Your task to perform on an android device: turn on showing notifications on the lock screen Image 0: 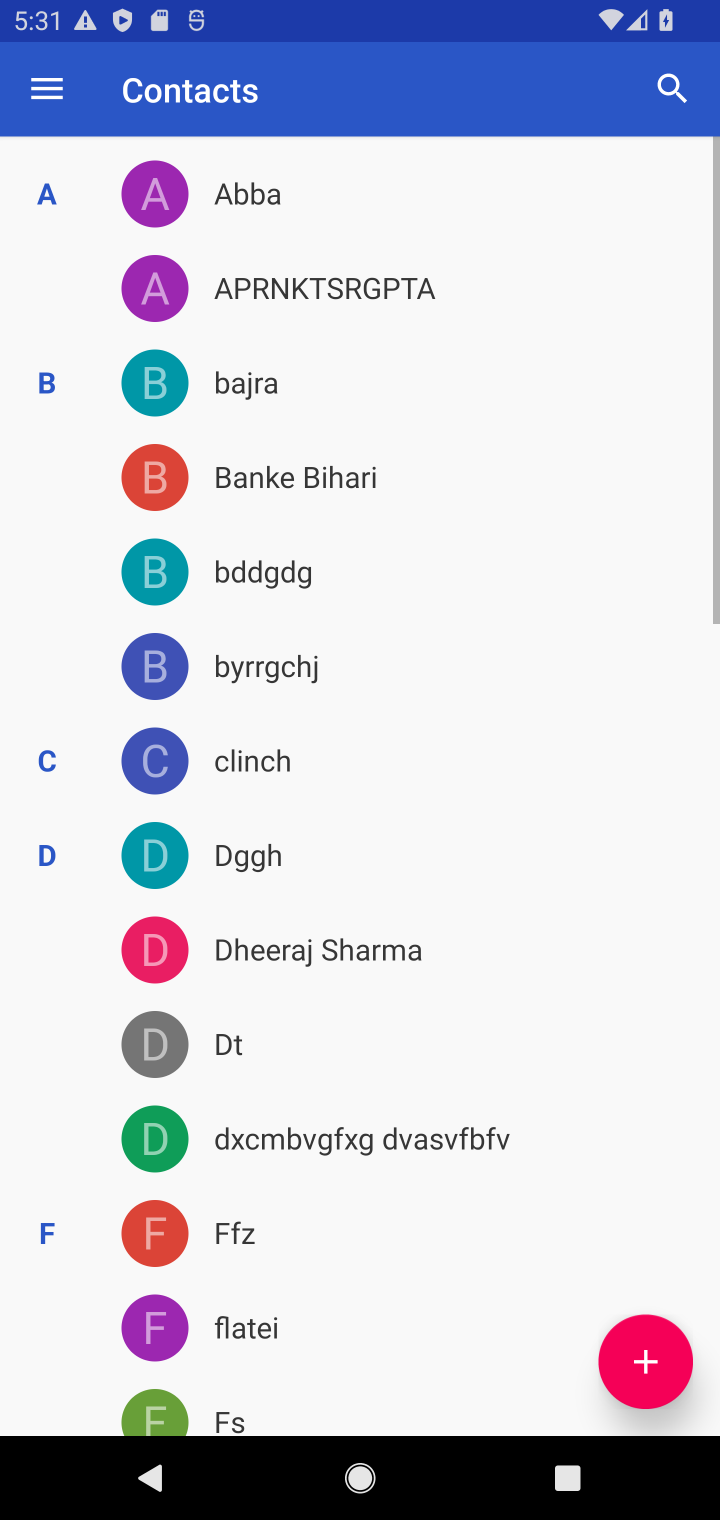
Step 0: press home button
Your task to perform on an android device: turn on showing notifications on the lock screen Image 1: 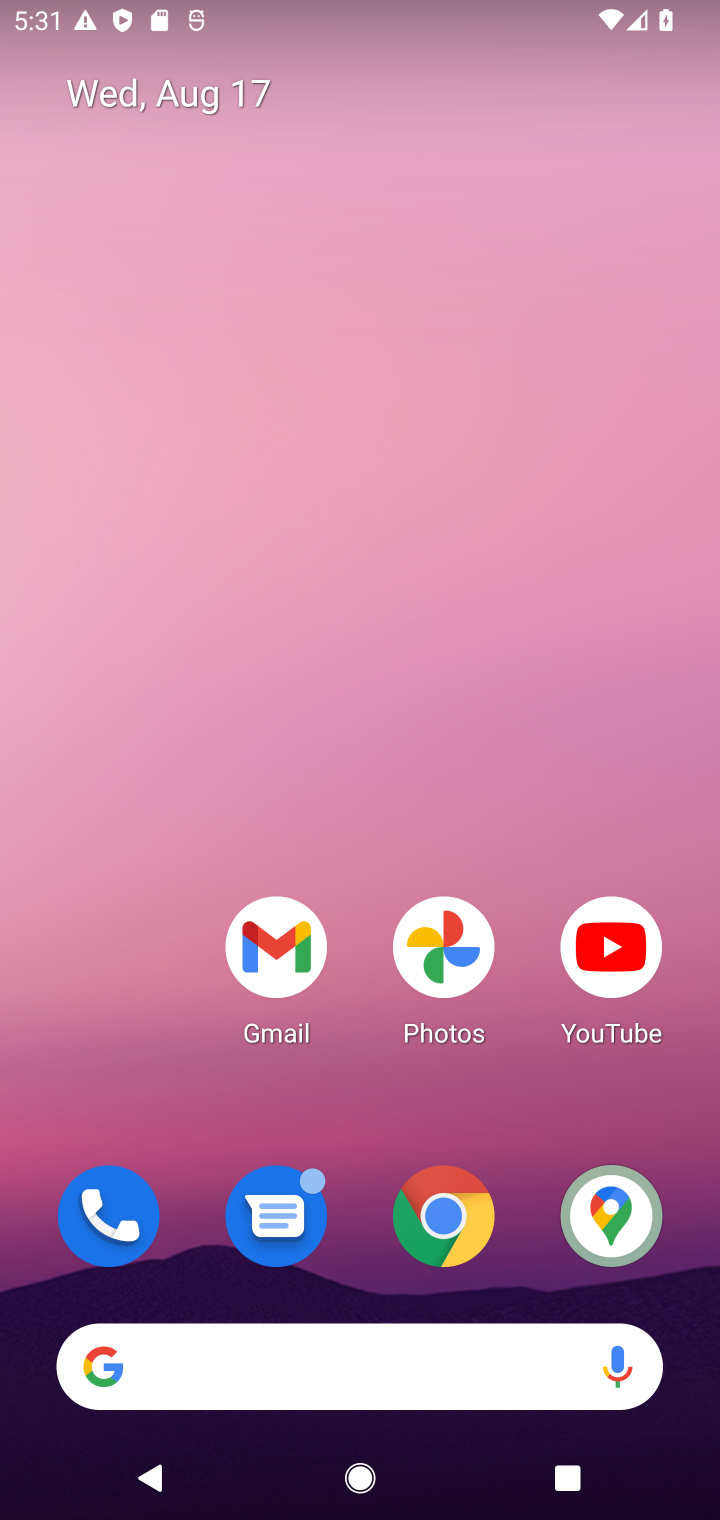
Step 1: drag from (367, 1106) to (495, 78)
Your task to perform on an android device: turn on showing notifications on the lock screen Image 2: 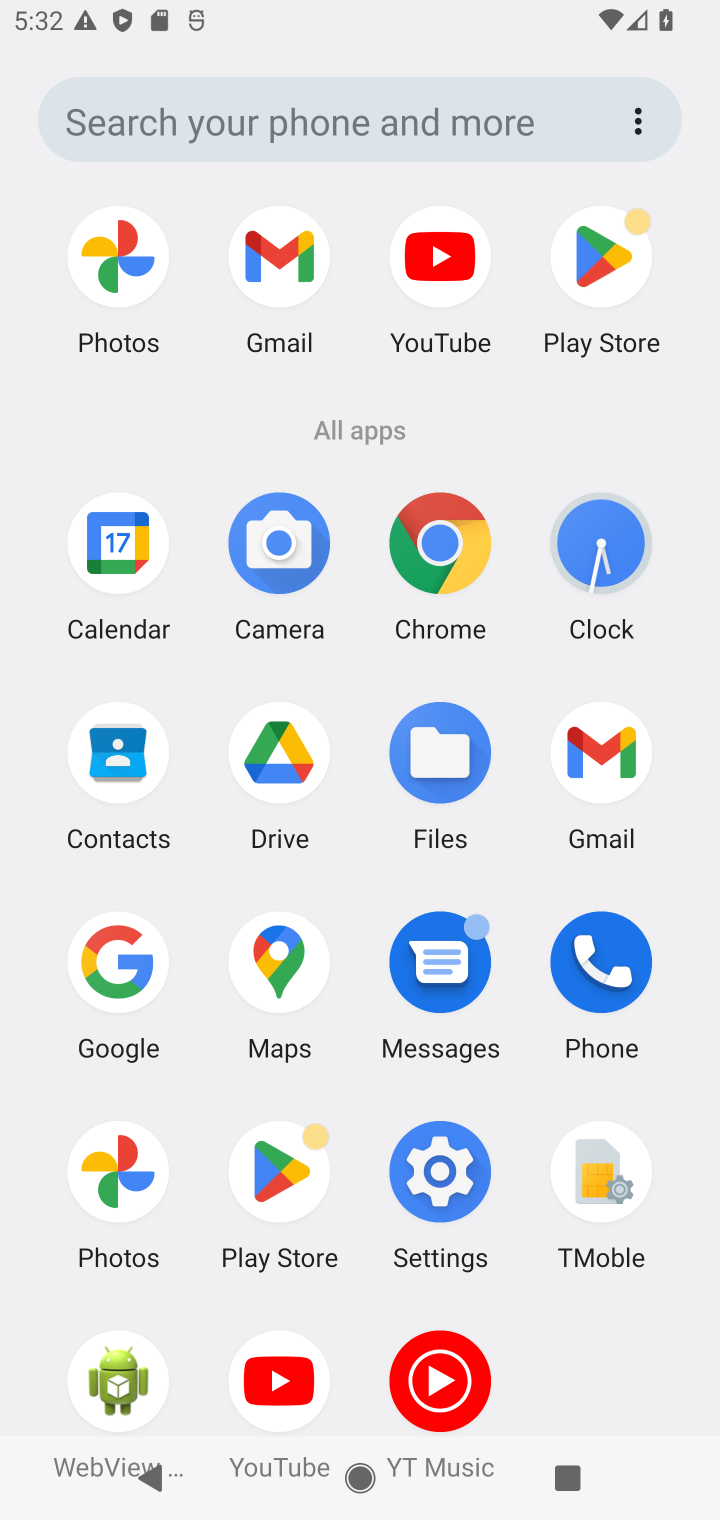
Step 2: click (439, 1168)
Your task to perform on an android device: turn on showing notifications on the lock screen Image 3: 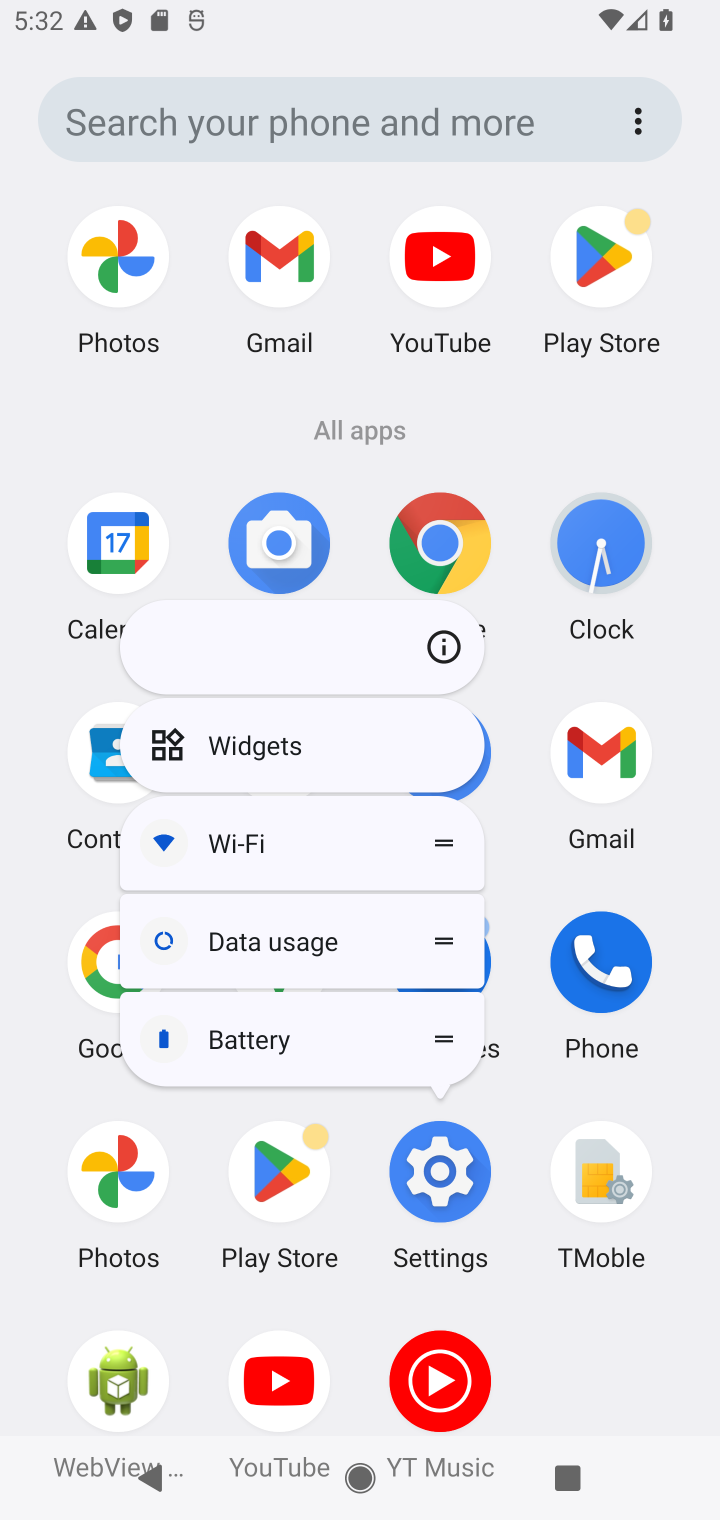
Step 3: click (451, 1173)
Your task to perform on an android device: turn on showing notifications on the lock screen Image 4: 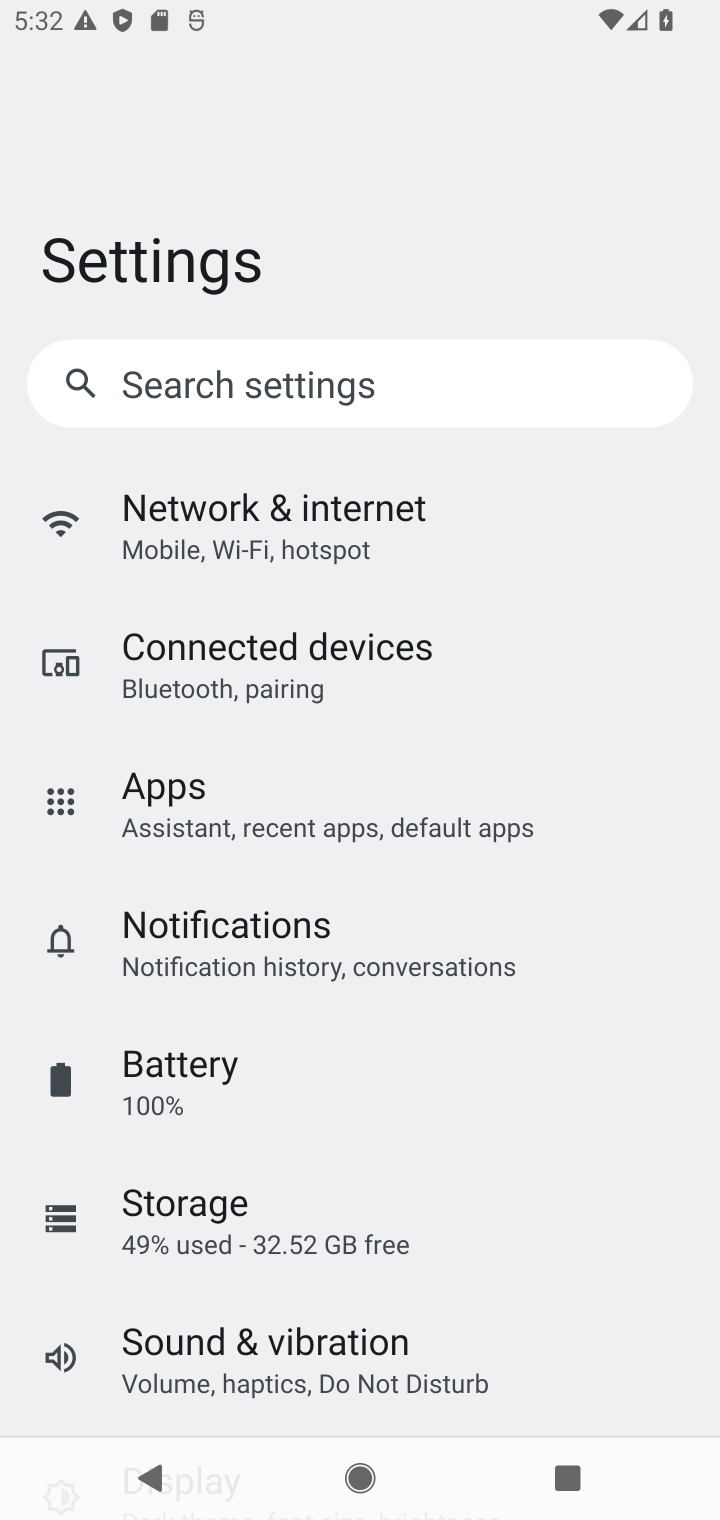
Step 4: click (328, 928)
Your task to perform on an android device: turn on showing notifications on the lock screen Image 5: 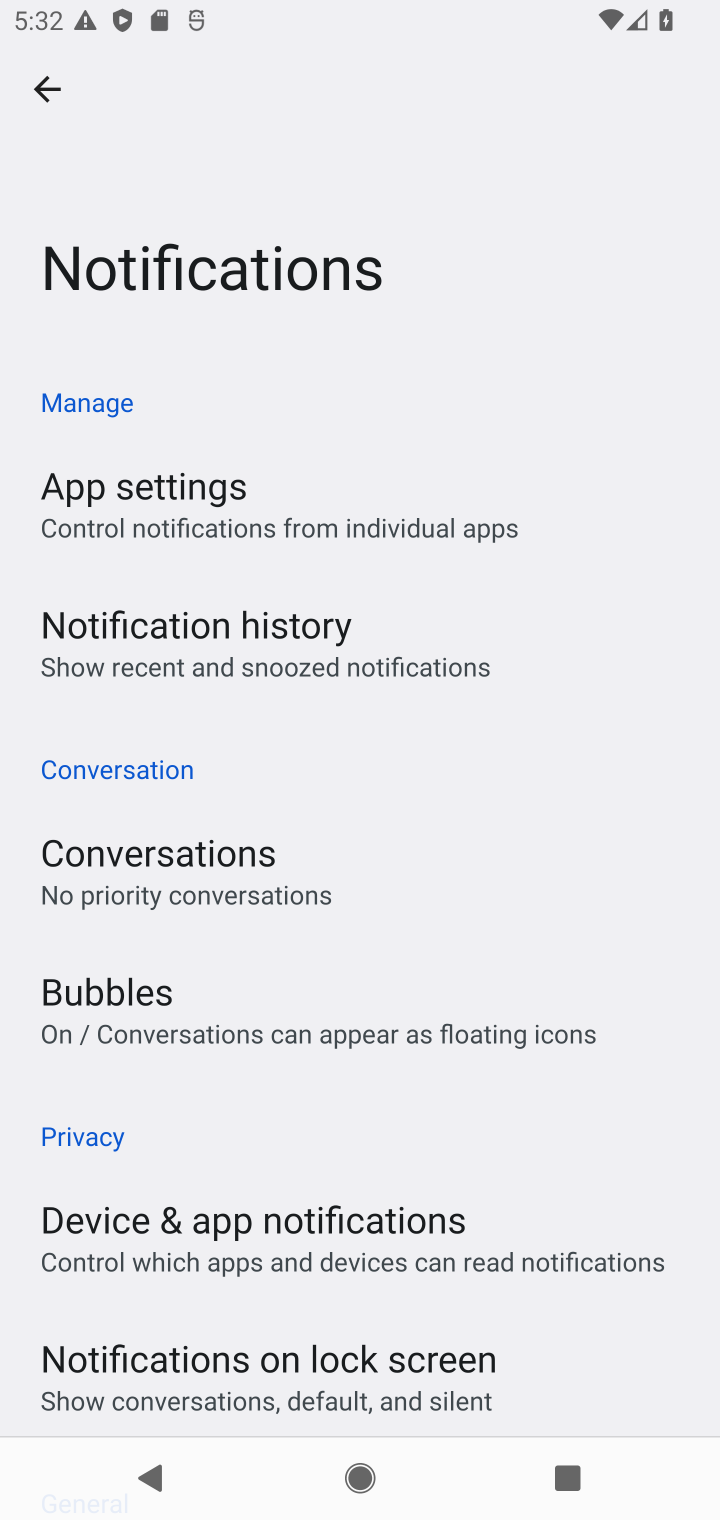
Step 5: drag from (361, 1139) to (337, 513)
Your task to perform on an android device: turn on showing notifications on the lock screen Image 6: 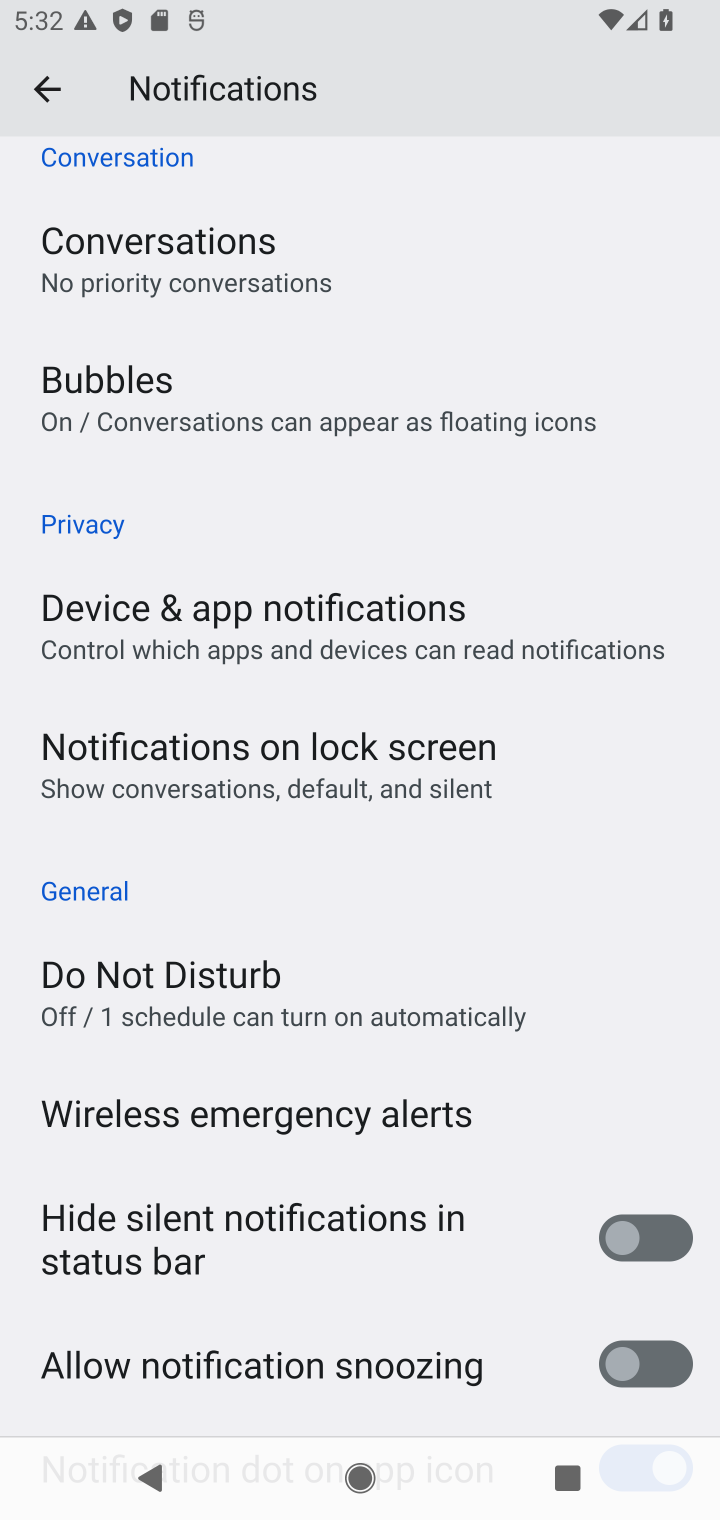
Step 6: click (317, 750)
Your task to perform on an android device: turn on showing notifications on the lock screen Image 7: 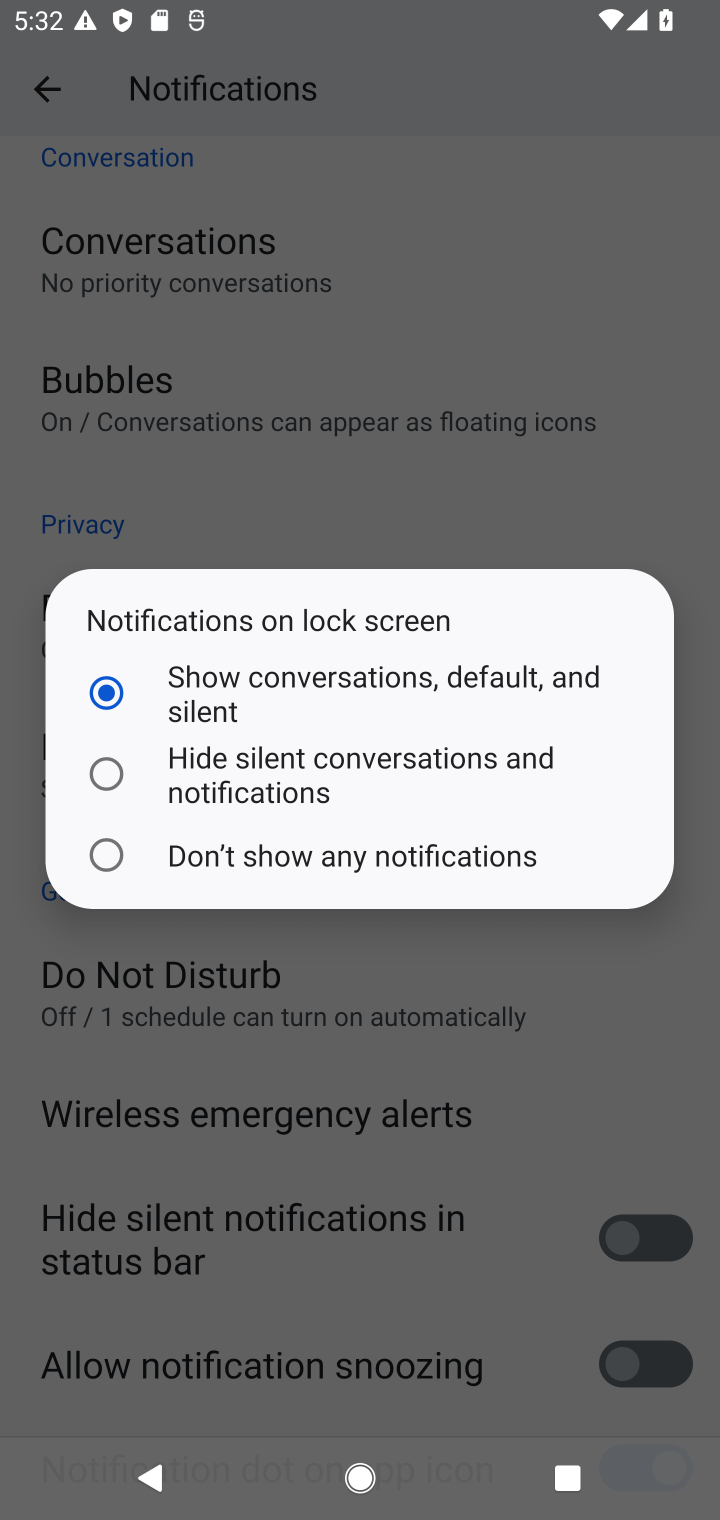
Step 7: click (252, 775)
Your task to perform on an android device: turn on showing notifications on the lock screen Image 8: 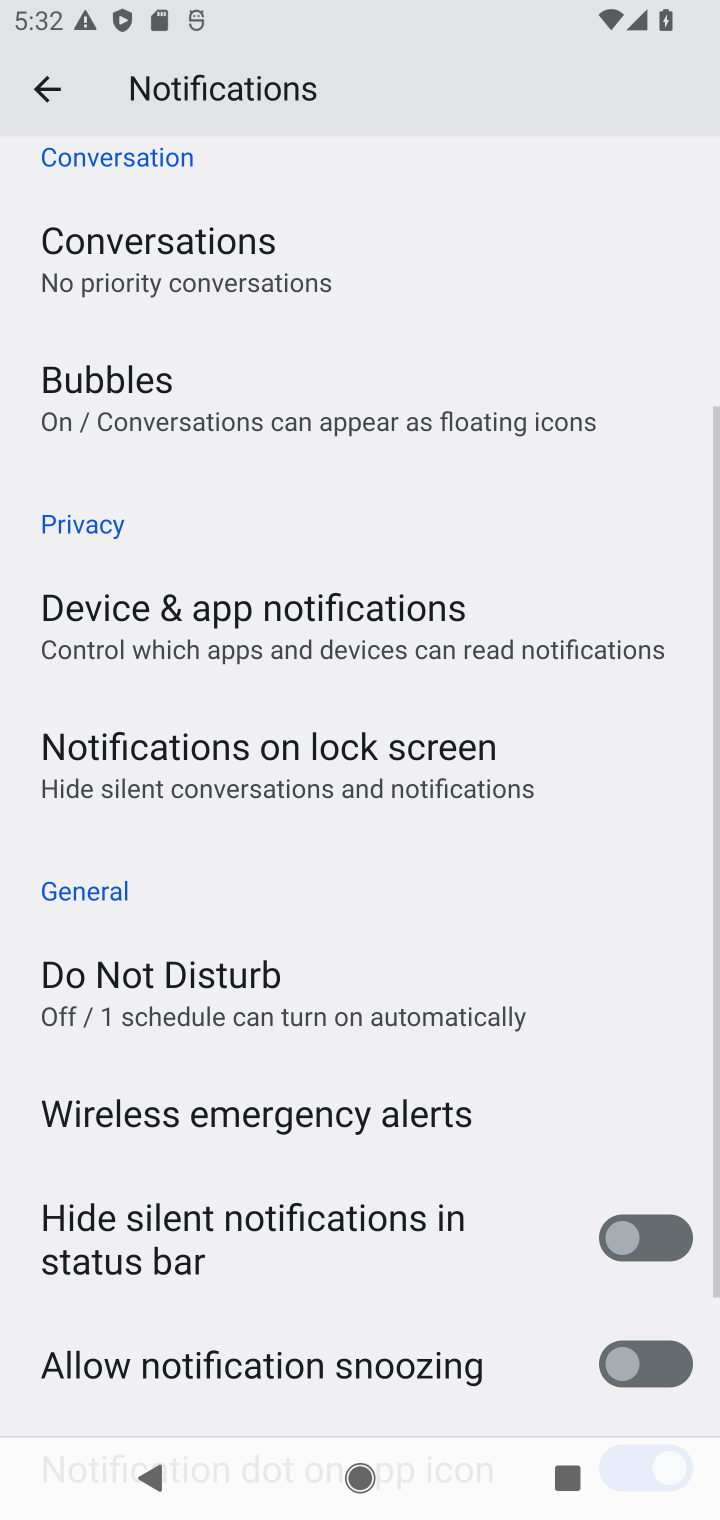
Step 8: task complete